Your task to perform on an android device: Go to sound settings Image 0: 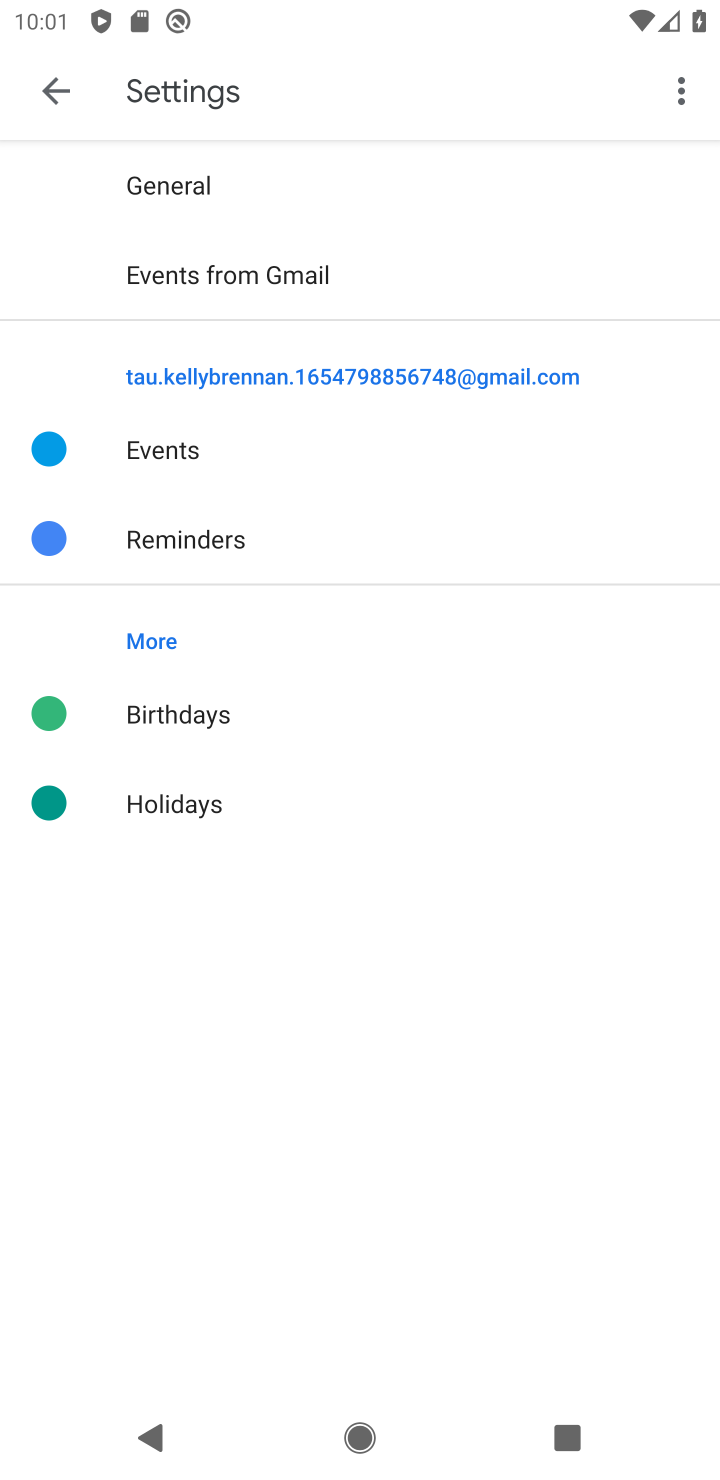
Step 0: press home button
Your task to perform on an android device: Go to sound settings Image 1: 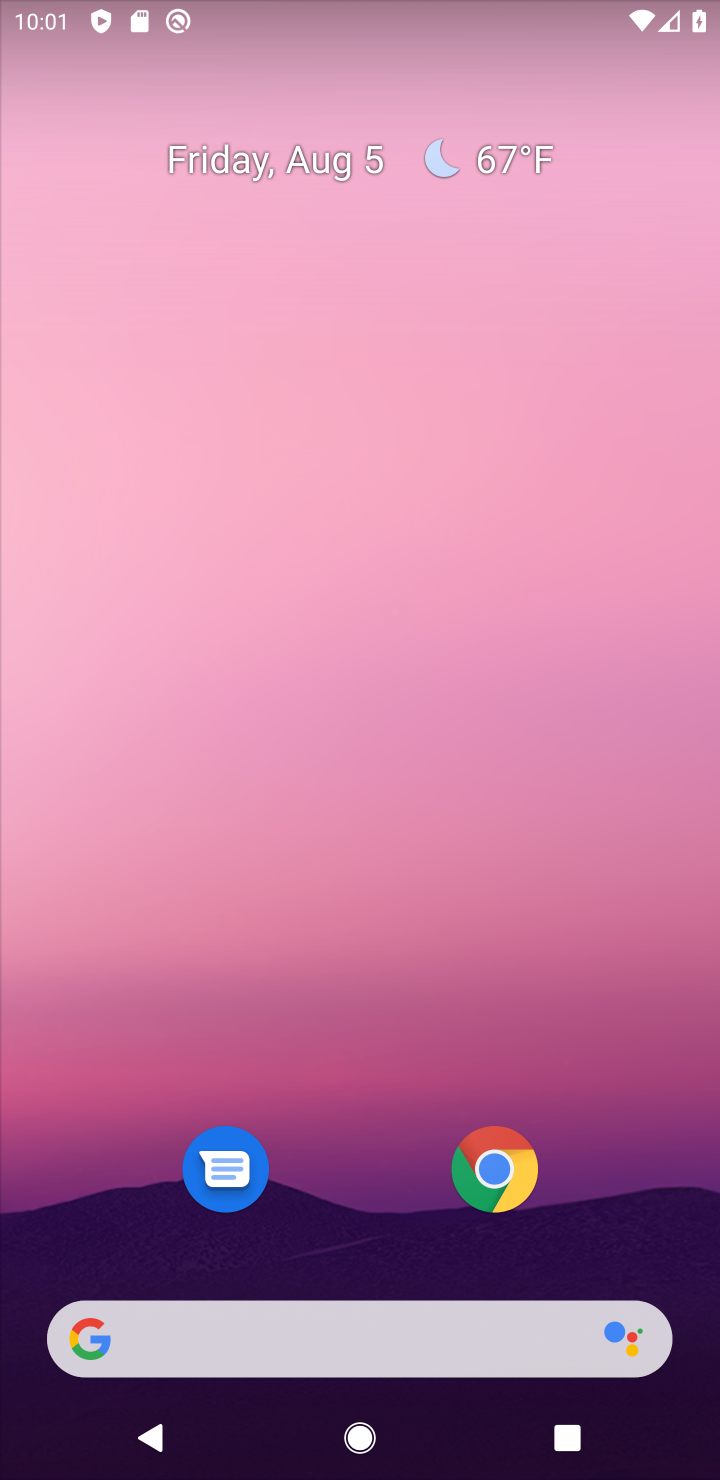
Step 1: drag from (630, 1248) to (598, 261)
Your task to perform on an android device: Go to sound settings Image 2: 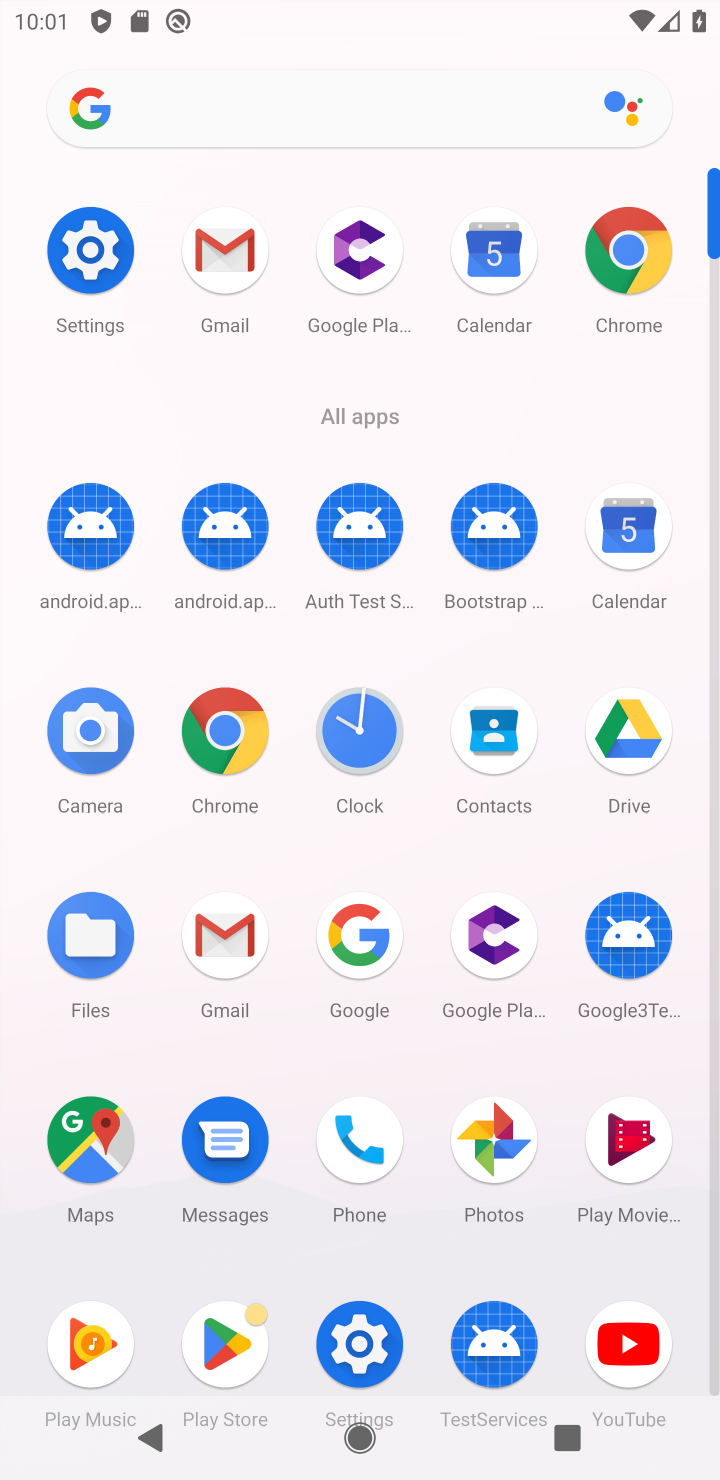
Step 2: click (363, 1341)
Your task to perform on an android device: Go to sound settings Image 3: 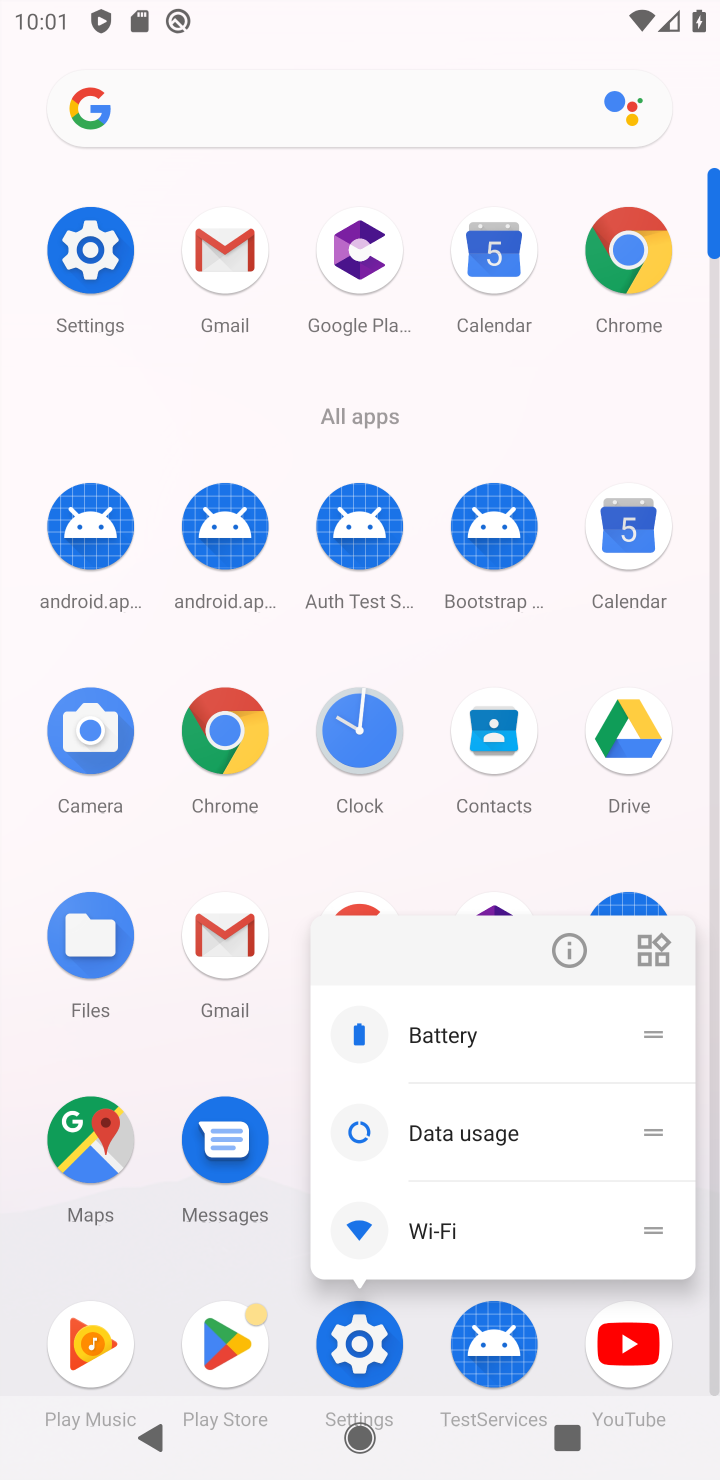
Step 3: click (352, 1339)
Your task to perform on an android device: Go to sound settings Image 4: 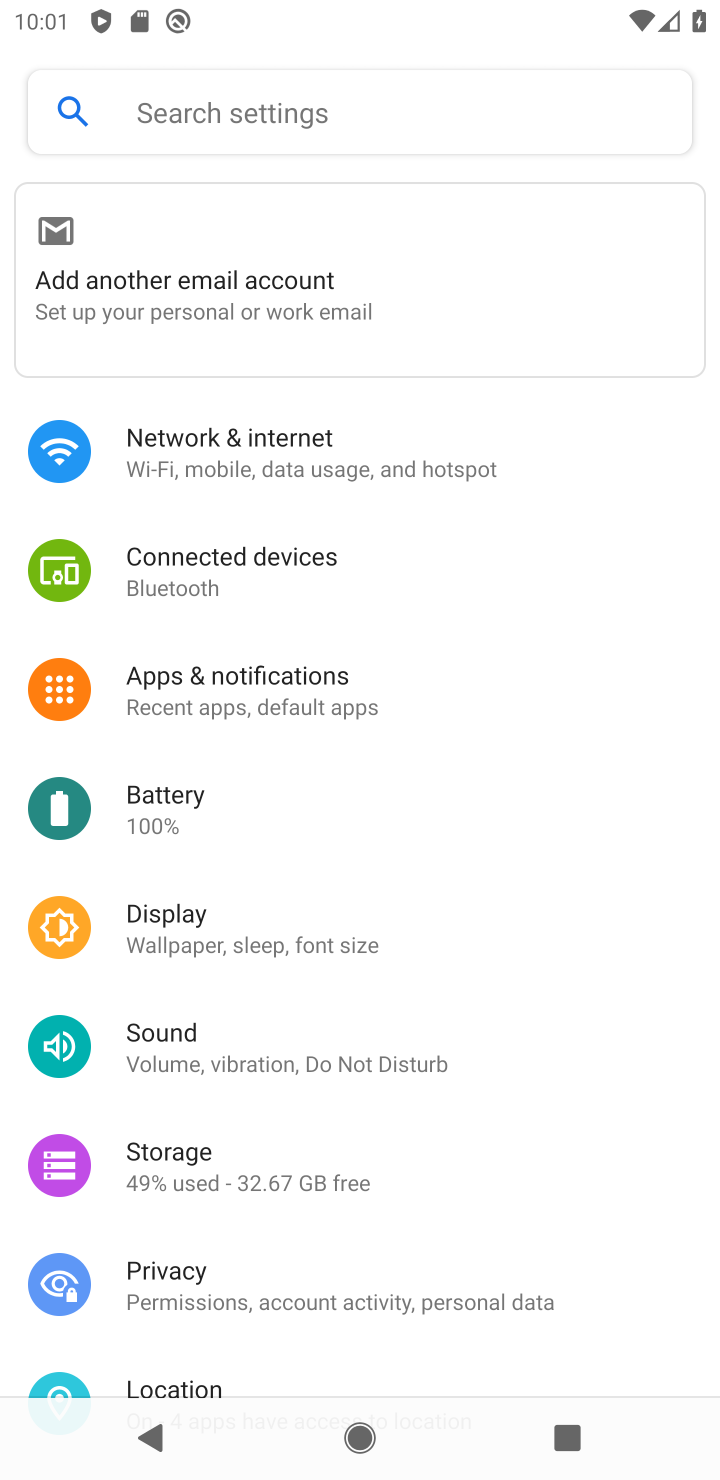
Step 4: click (169, 1036)
Your task to perform on an android device: Go to sound settings Image 5: 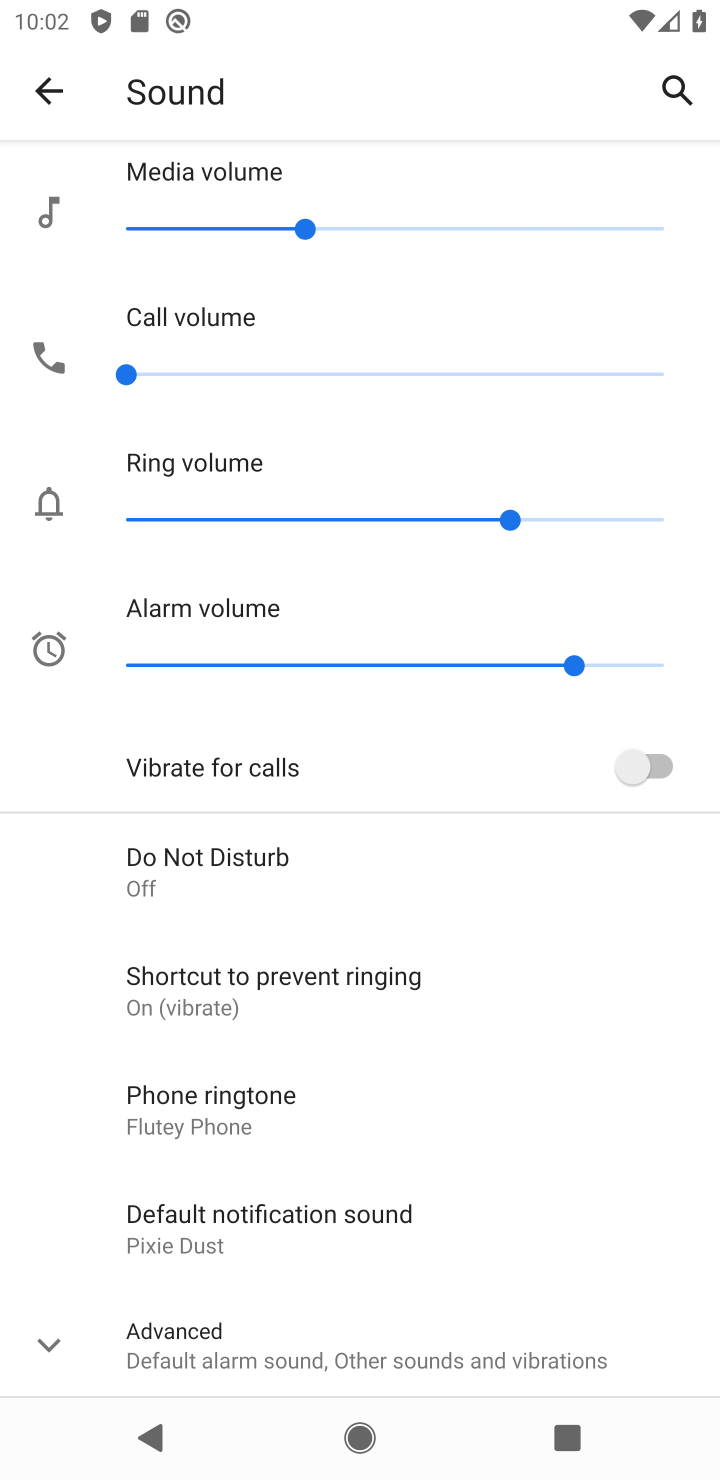
Step 5: task complete